Your task to perform on an android device: Is it going to rain this weekend? Image 0: 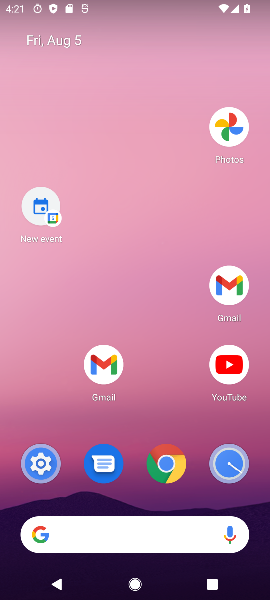
Step 0: drag from (156, 549) to (166, 33)
Your task to perform on an android device: Is it going to rain this weekend? Image 1: 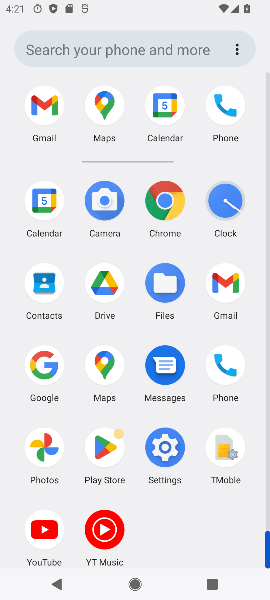
Step 1: click (163, 201)
Your task to perform on an android device: Is it going to rain this weekend? Image 2: 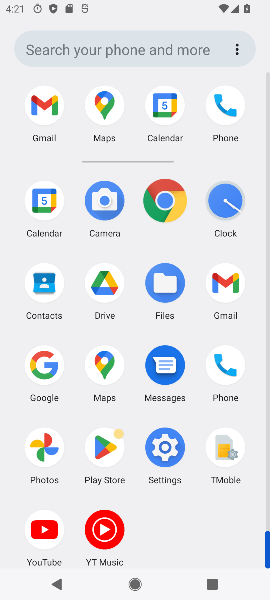
Step 2: click (163, 201)
Your task to perform on an android device: Is it going to rain this weekend? Image 3: 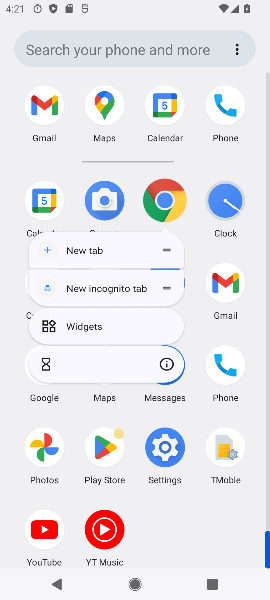
Step 3: click (163, 201)
Your task to perform on an android device: Is it going to rain this weekend? Image 4: 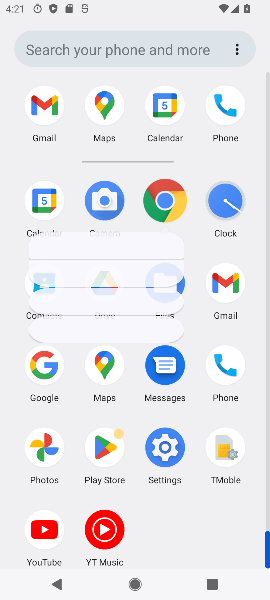
Step 4: click (163, 201)
Your task to perform on an android device: Is it going to rain this weekend? Image 5: 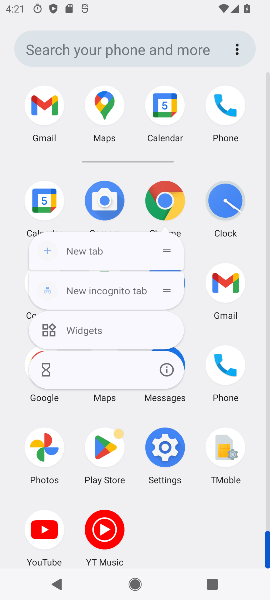
Step 5: click (163, 201)
Your task to perform on an android device: Is it going to rain this weekend? Image 6: 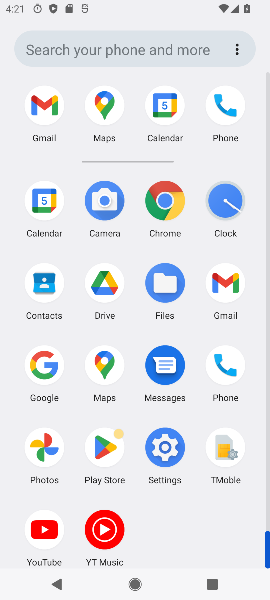
Step 6: click (163, 201)
Your task to perform on an android device: Is it going to rain this weekend? Image 7: 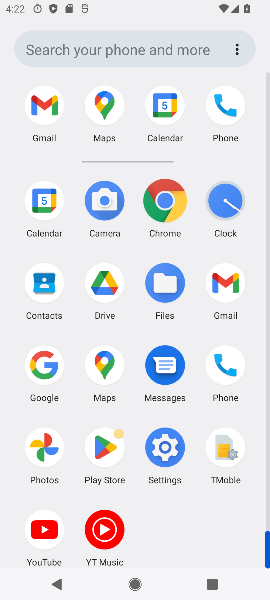
Step 7: click (166, 202)
Your task to perform on an android device: Is it going to rain this weekend? Image 8: 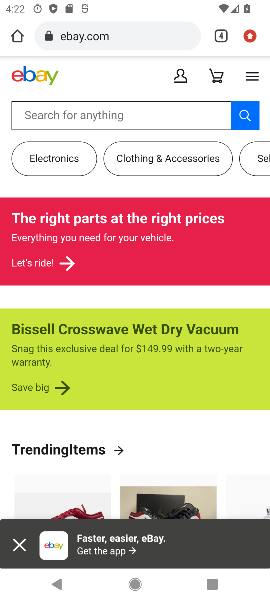
Step 8: drag from (251, 26) to (214, 525)
Your task to perform on an android device: Is it going to rain this weekend? Image 9: 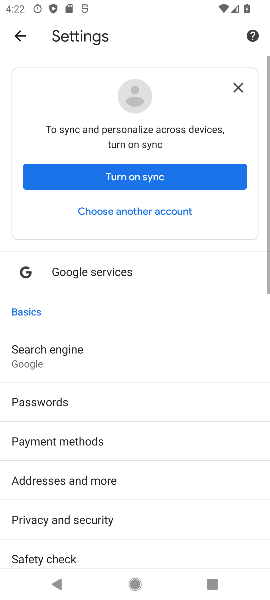
Step 9: click (250, 29)
Your task to perform on an android device: Is it going to rain this weekend? Image 10: 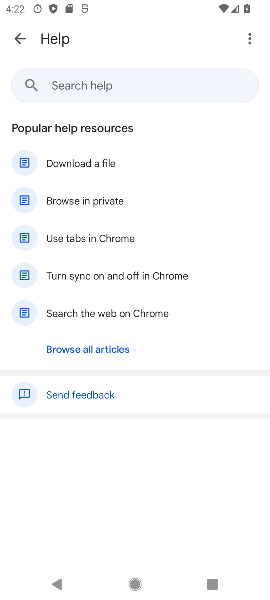
Step 10: click (20, 28)
Your task to perform on an android device: Is it going to rain this weekend? Image 11: 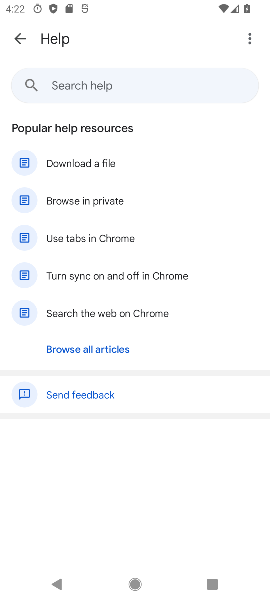
Step 11: click (17, 35)
Your task to perform on an android device: Is it going to rain this weekend? Image 12: 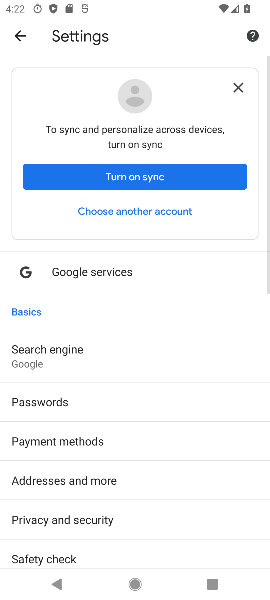
Step 12: click (15, 36)
Your task to perform on an android device: Is it going to rain this weekend? Image 13: 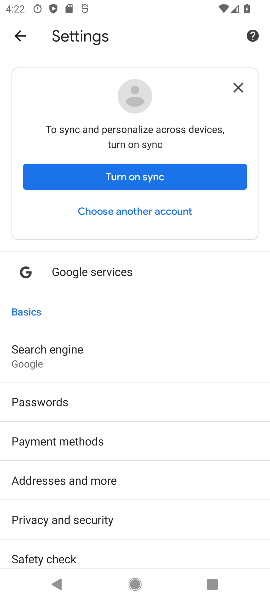
Step 13: click (19, 30)
Your task to perform on an android device: Is it going to rain this weekend? Image 14: 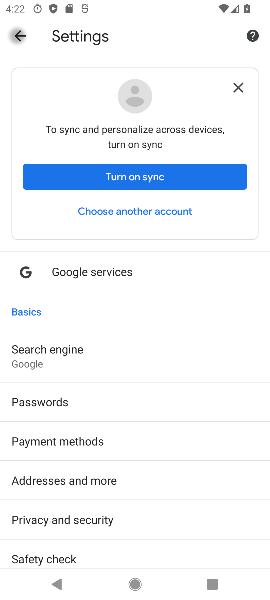
Step 14: click (19, 30)
Your task to perform on an android device: Is it going to rain this weekend? Image 15: 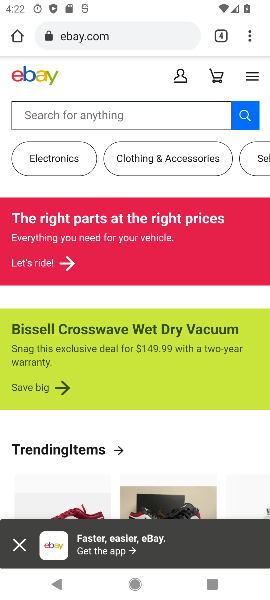
Step 15: click (247, 34)
Your task to perform on an android device: Is it going to rain this weekend? Image 16: 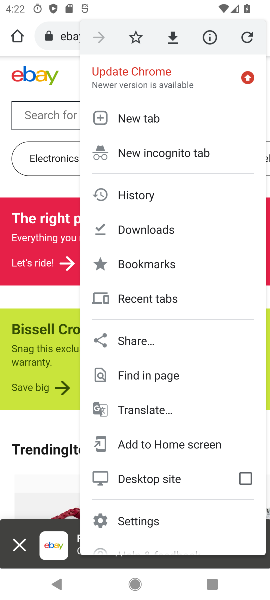
Step 16: click (132, 112)
Your task to perform on an android device: Is it going to rain this weekend? Image 17: 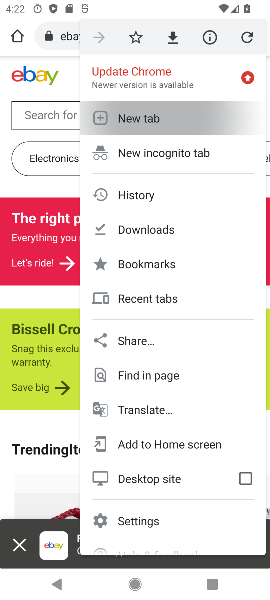
Step 17: click (132, 112)
Your task to perform on an android device: Is it going to rain this weekend? Image 18: 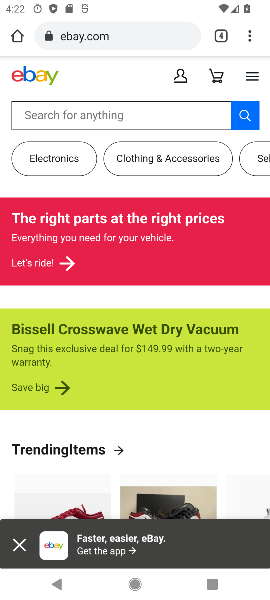
Step 18: click (135, 110)
Your task to perform on an android device: Is it going to rain this weekend? Image 19: 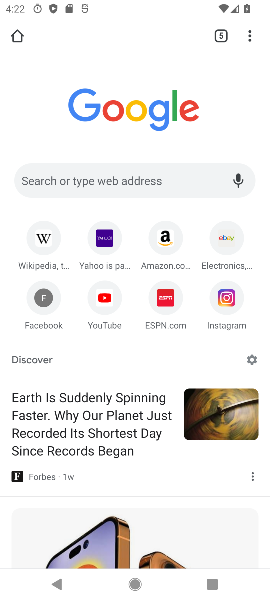
Step 19: click (57, 170)
Your task to perform on an android device: Is it going to rain this weekend? Image 20: 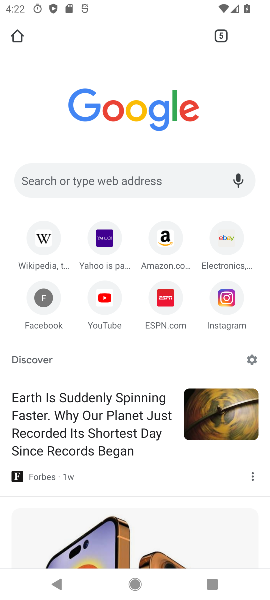
Step 20: click (54, 173)
Your task to perform on an android device: Is it going to rain this weekend? Image 21: 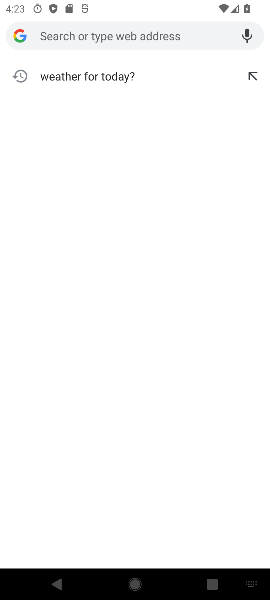
Step 21: type "weekend"
Your task to perform on an android device: Is it going to rain this weekend? Image 22: 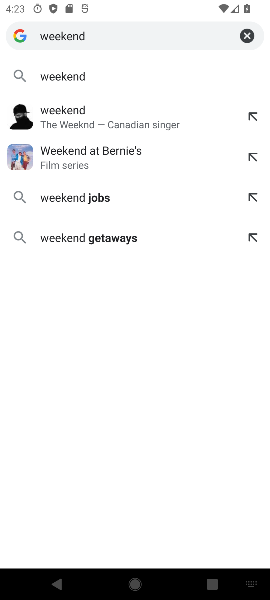
Step 22: click (71, 77)
Your task to perform on an android device: Is it going to rain this weekend? Image 23: 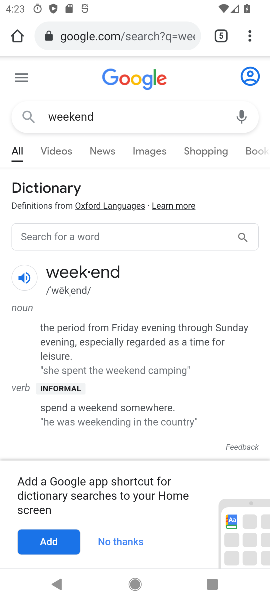
Step 23: click (112, 118)
Your task to perform on an android device: Is it going to rain this weekend? Image 24: 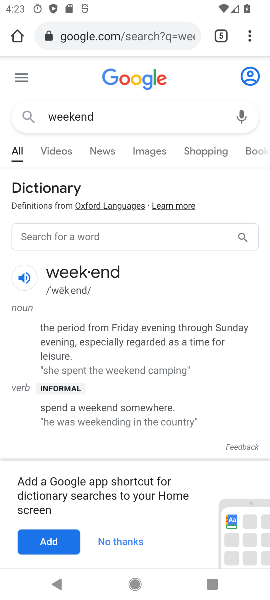
Step 24: click (109, 117)
Your task to perform on an android device: Is it going to rain this weekend? Image 25: 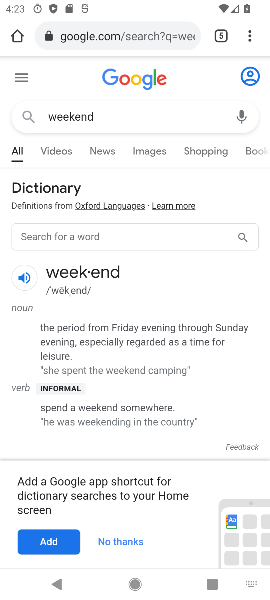
Step 25: click (109, 117)
Your task to perform on an android device: Is it going to rain this weekend? Image 26: 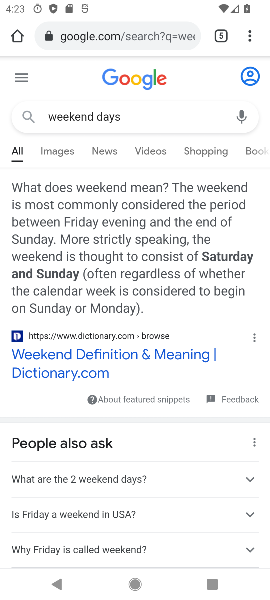
Step 26: type "rain"
Your task to perform on an android device: Is it going to rain this weekend? Image 27: 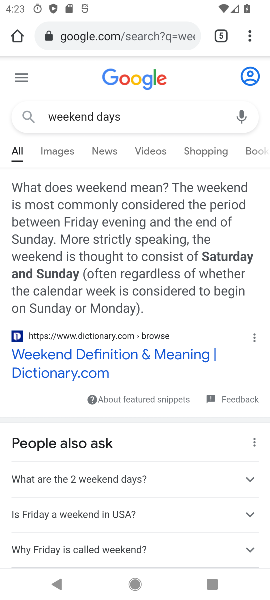
Step 27: click (138, 114)
Your task to perform on an android device: Is it going to rain this weekend? Image 28: 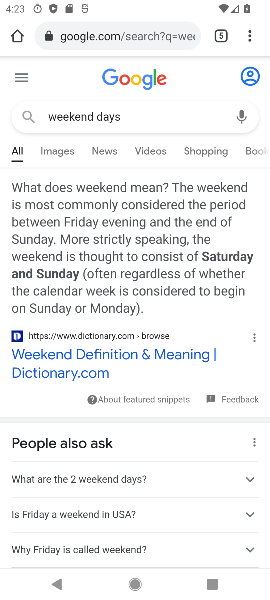
Step 28: click (138, 114)
Your task to perform on an android device: Is it going to rain this weekend? Image 29: 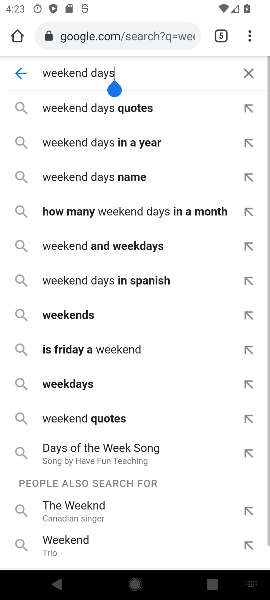
Step 29: click (137, 113)
Your task to perform on an android device: Is it going to rain this weekend? Image 30: 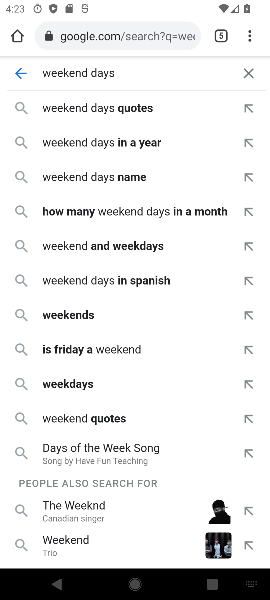
Step 30: type "rain"
Your task to perform on an android device: Is it going to rain this weekend? Image 31: 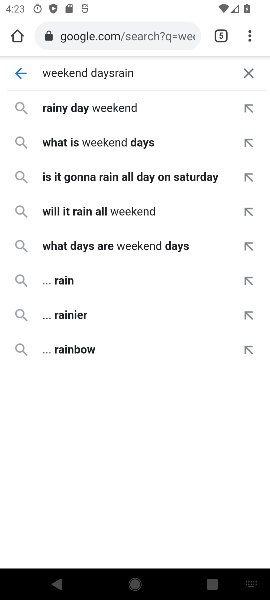
Step 31: click (90, 106)
Your task to perform on an android device: Is it going to rain this weekend? Image 32: 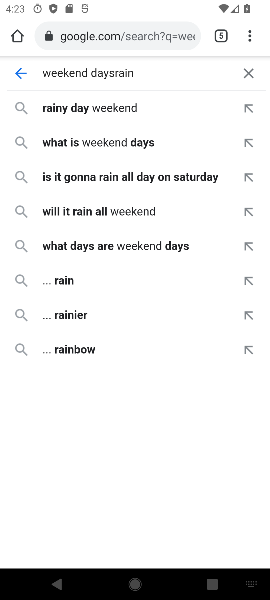
Step 32: click (91, 105)
Your task to perform on an android device: Is it going to rain this weekend? Image 33: 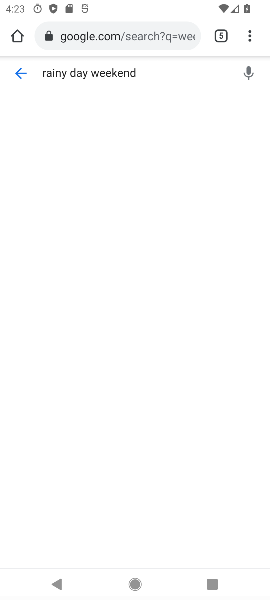
Step 33: click (92, 105)
Your task to perform on an android device: Is it going to rain this weekend? Image 34: 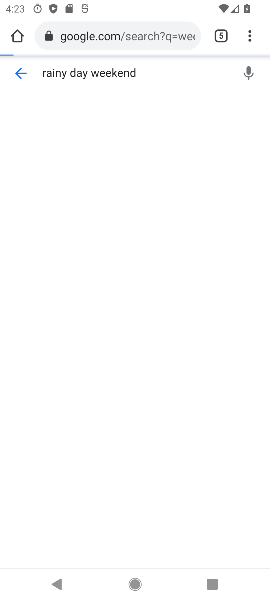
Step 34: click (95, 104)
Your task to perform on an android device: Is it going to rain this weekend? Image 35: 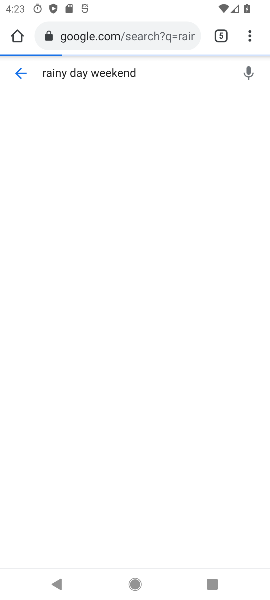
Step 35: click (108, 106)
Your task to perform on an android device: Is it going to rain this weekend? Image 36: 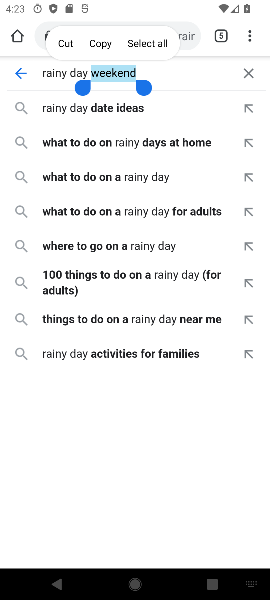
Step 36: click (149, 145)
Your task to perform on an android device: Is it going to rain this weekend? Image 37: 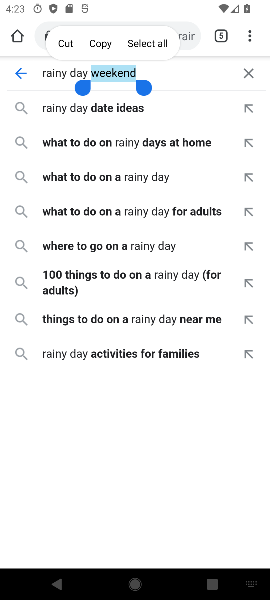
Step 37: click (149, 145)
Your task to perform on an android device: Is it going to rain this weekend? Image 38: 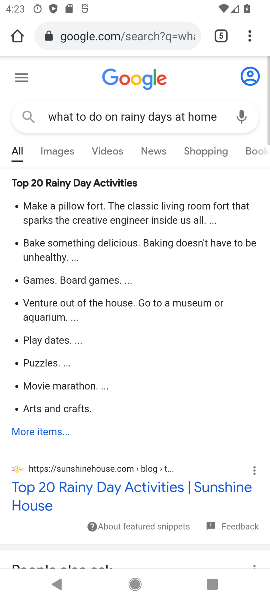
Step 38: task complete